Your task to perform on an android device: clear all cookies in the chrome app Image 0: 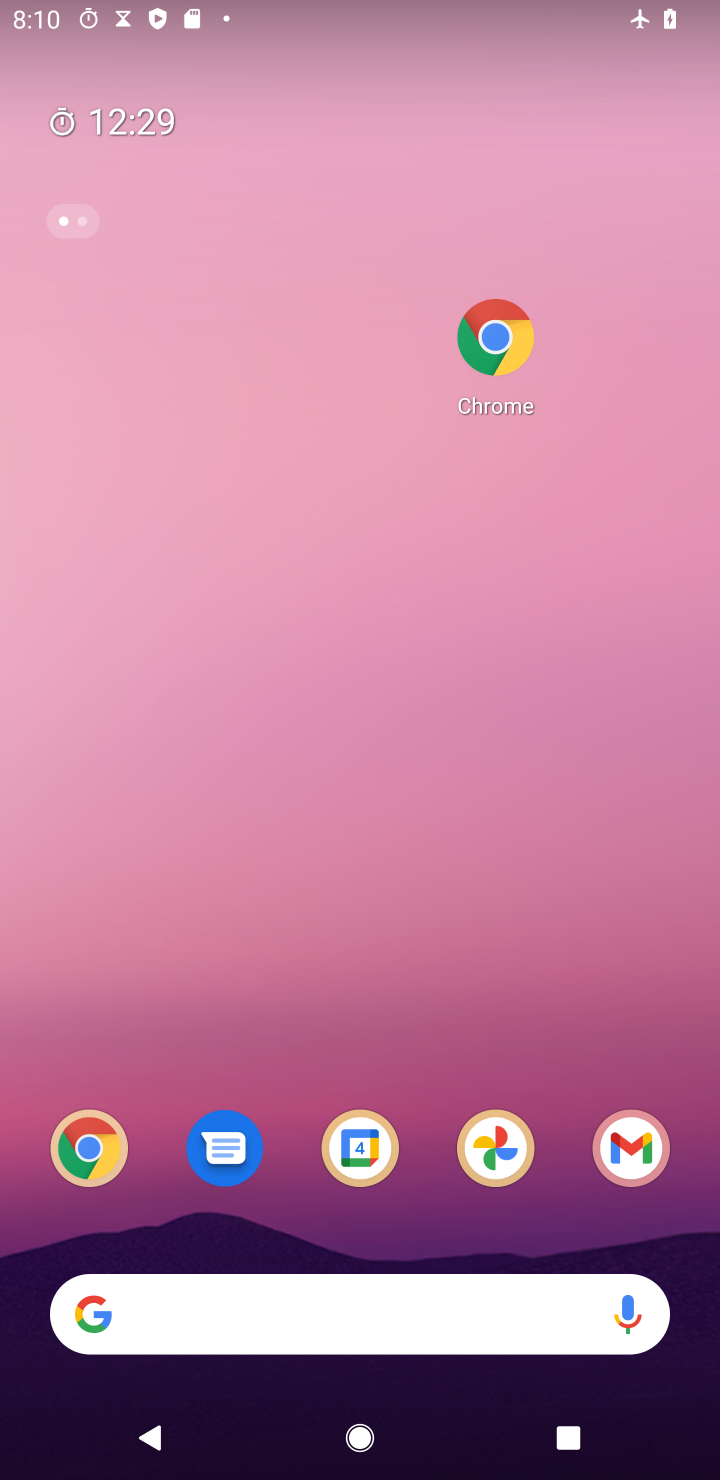
Step 0: click (90, 1153)
Your task to perform on an android device: clear all cookies in the chrome app Image 1: 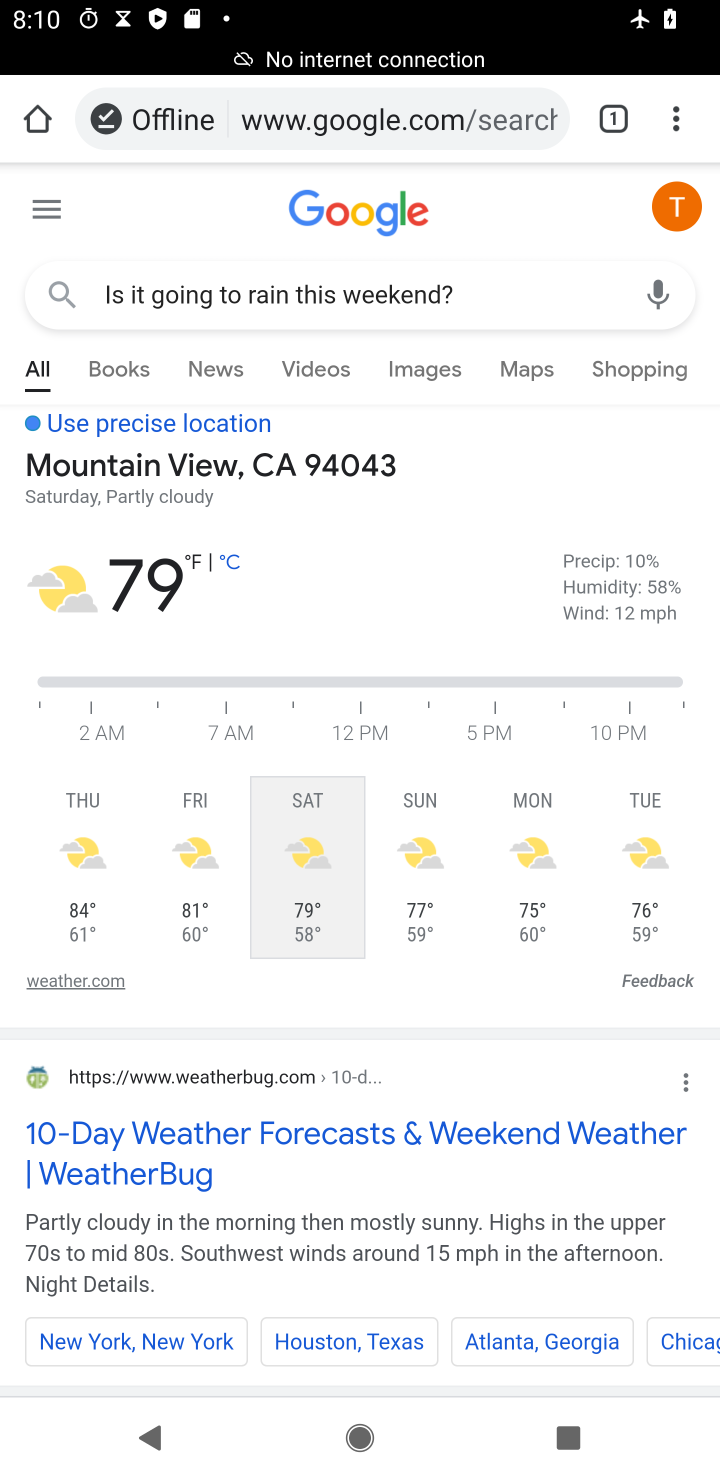
Step 1: click (678, 118)
Your task to perform on an android device: clear all cookies in the chrome app Image 2: 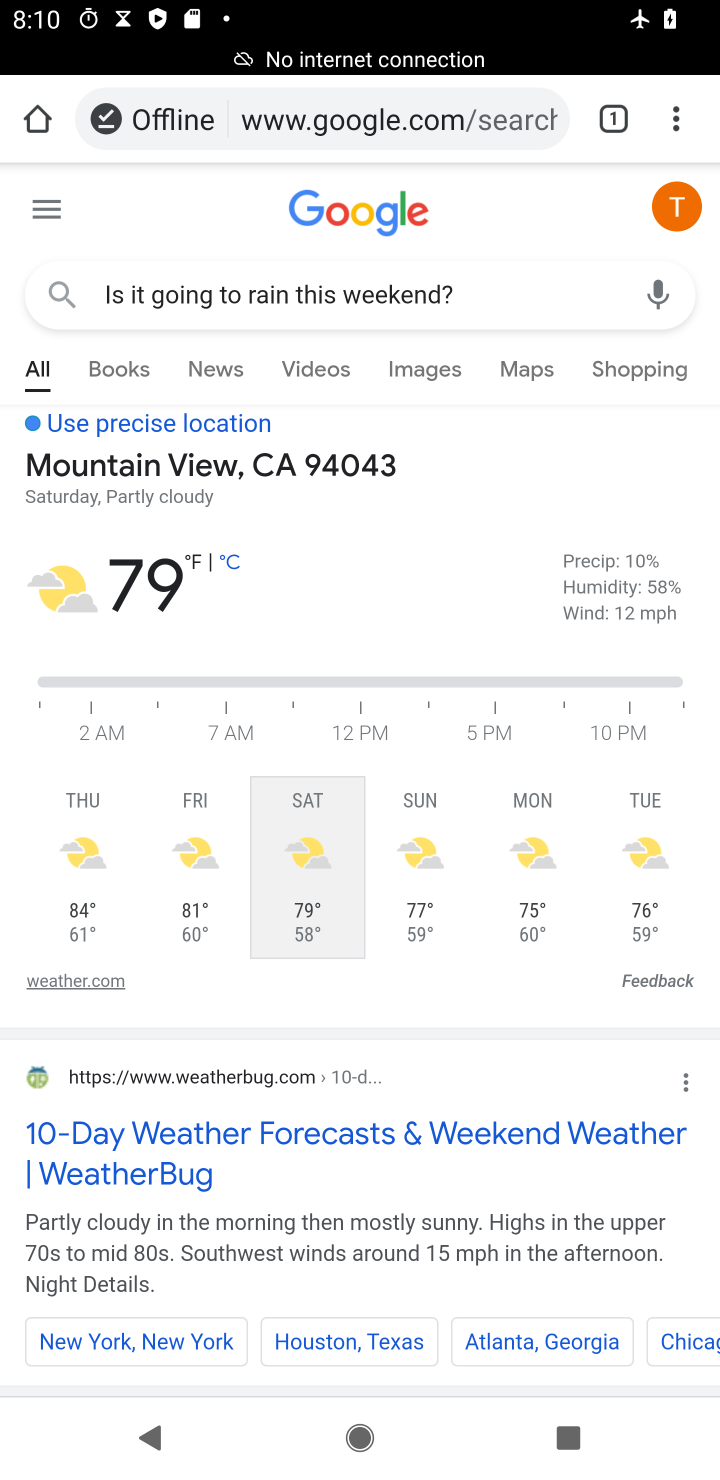
Step 2: click (676, 124)
Your task to perform on an android device: clear all cookies in the chrome app Image 3: 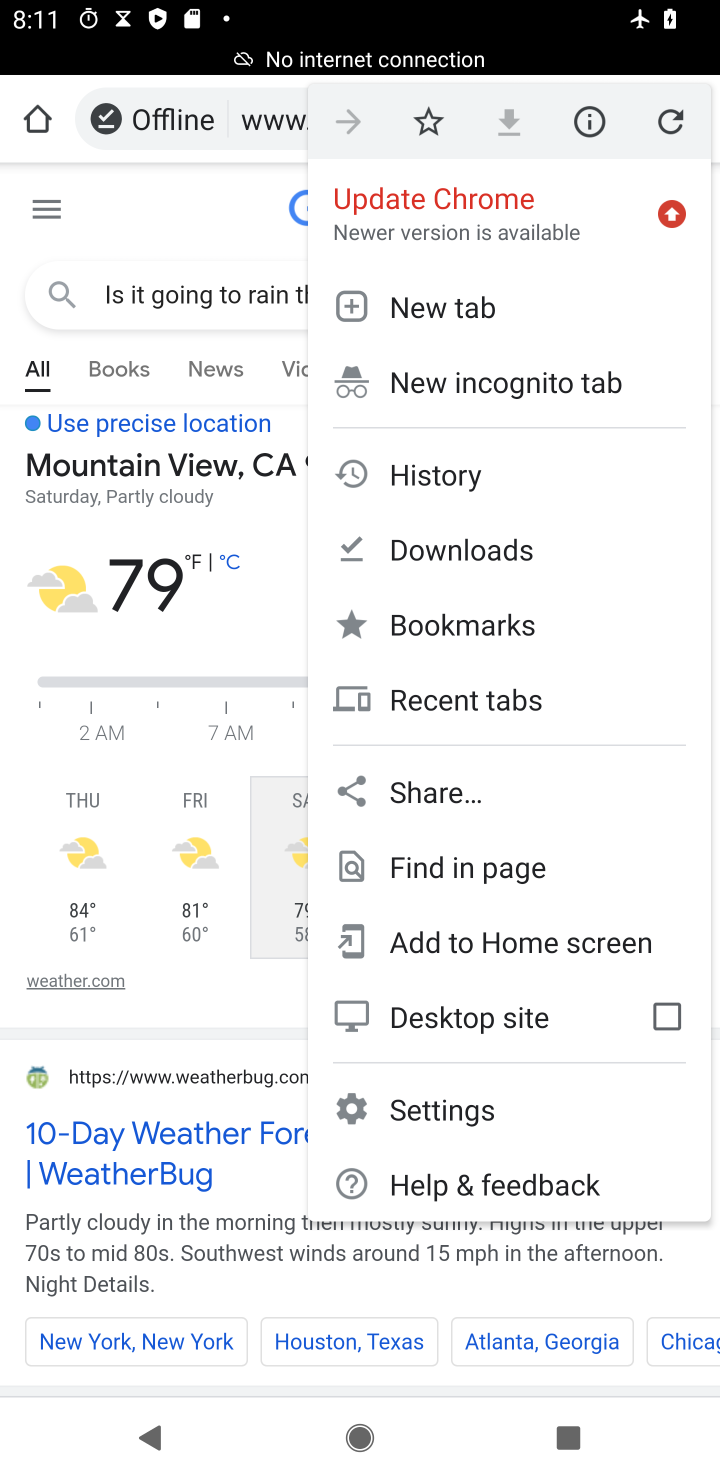
Step 3: click (462, 479)
Your task to perform on an android device: clear all cookies in the chrome app Image 4: 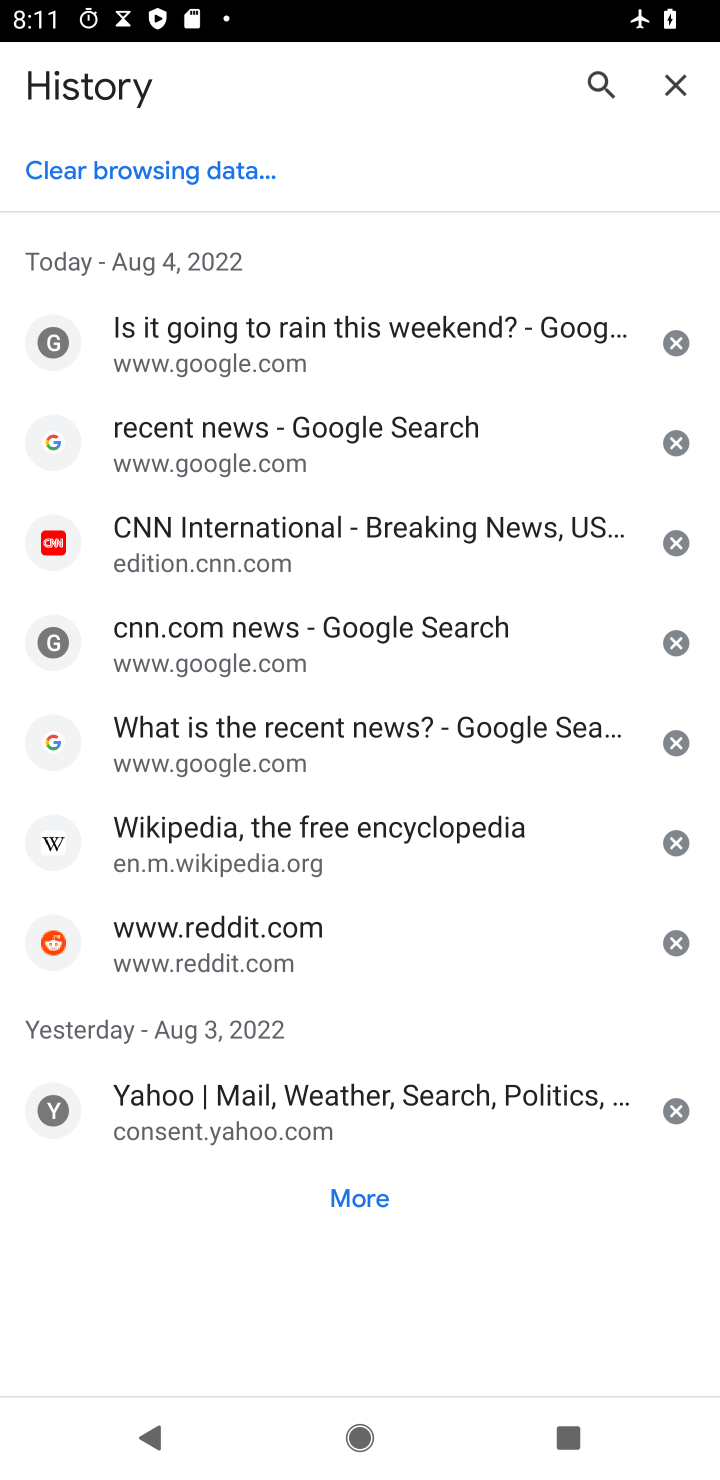
Step 4: click (164, 170)
Your task to perform on an android device: clear all cookies in the chrome app Image 5: 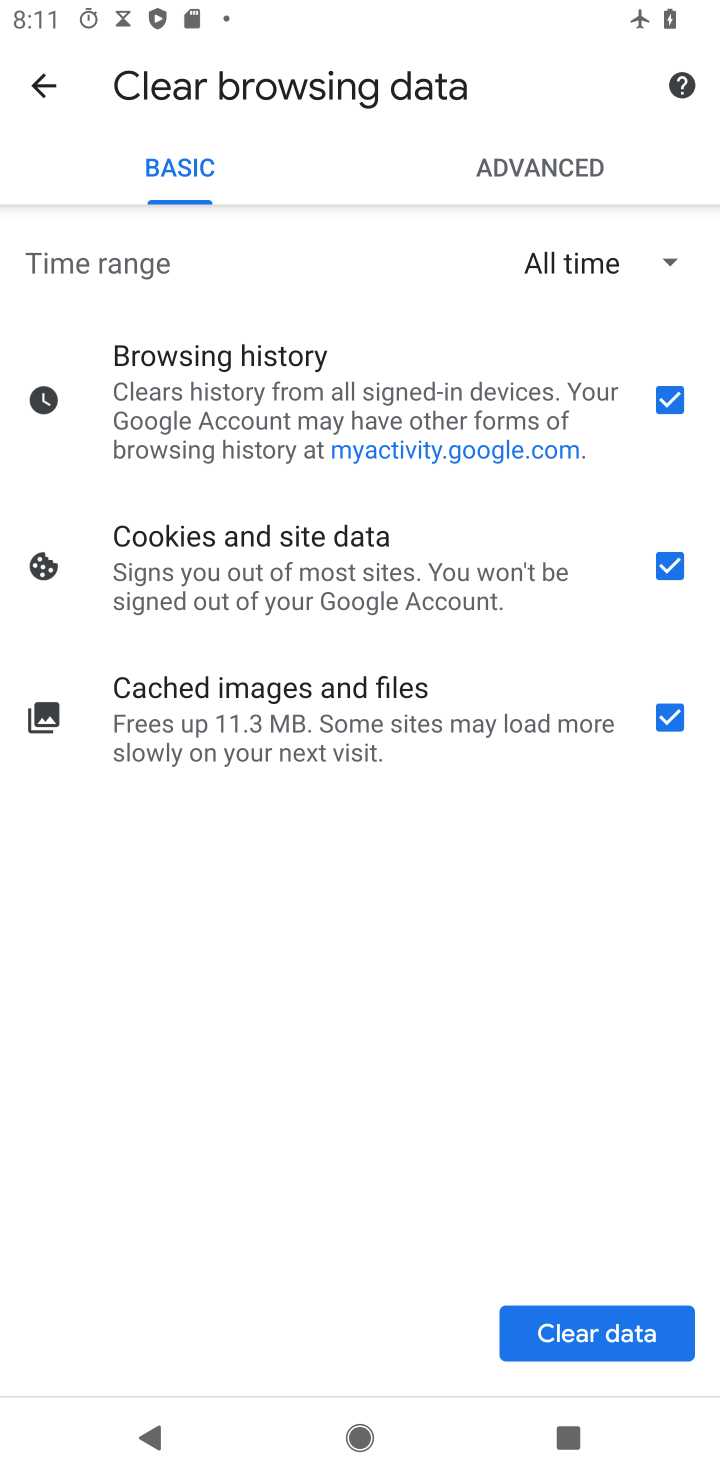
Step 5: click (666, 731)
Your task to perform on an android device: clear all cookies in the chrome app Image 6: 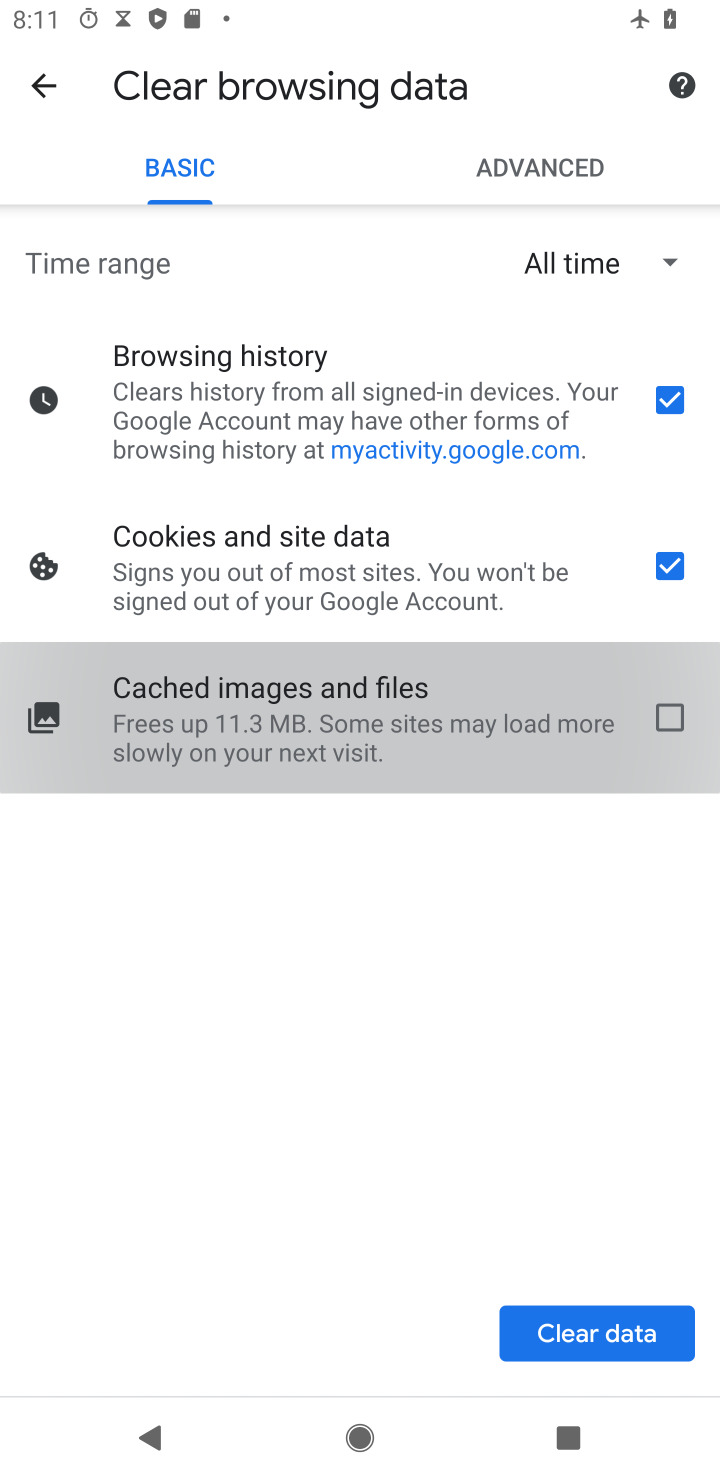
Step 6: click (658, 566)
Your task to perform on an android device: clear all cookies in the chrome app Image 7: 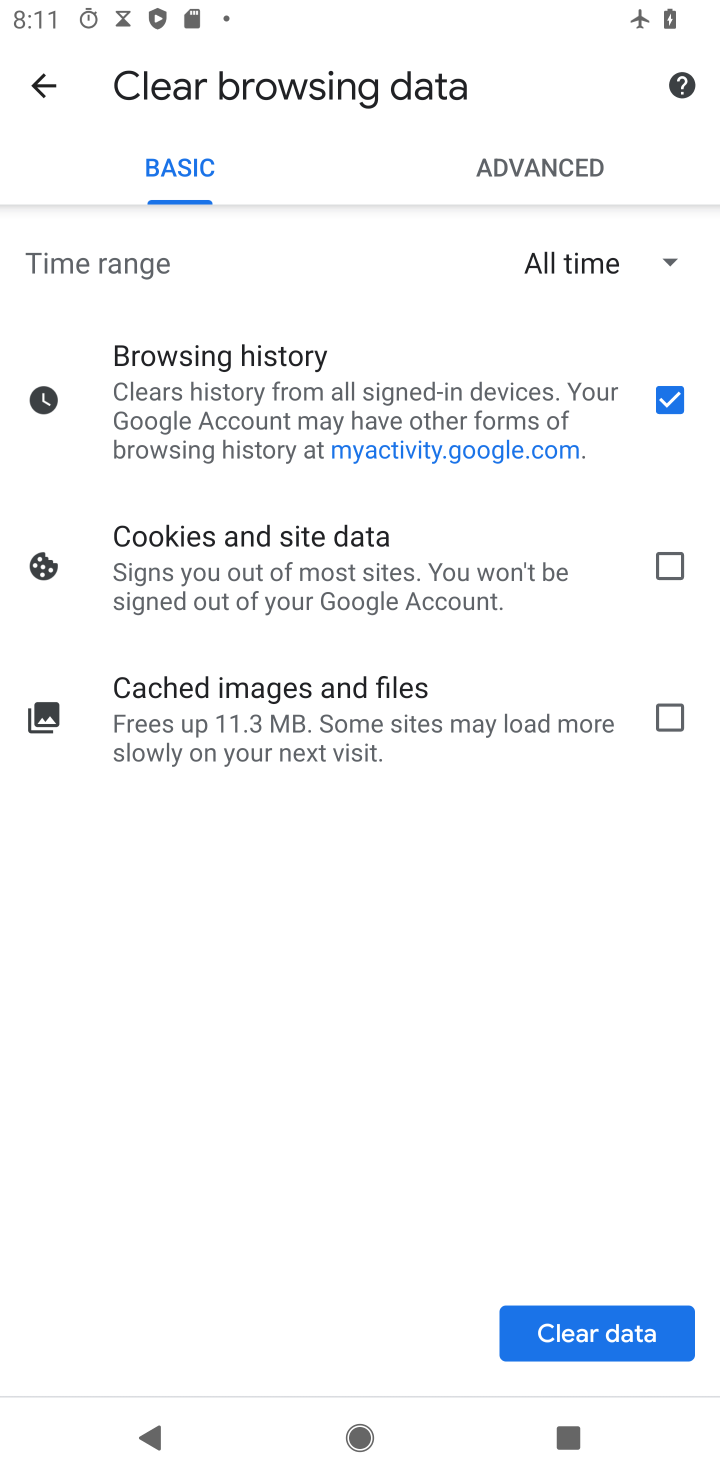
Step 7: click (644, 1333)
Your task to perform on an android device: clear all cookies in the chrome app Image 8: 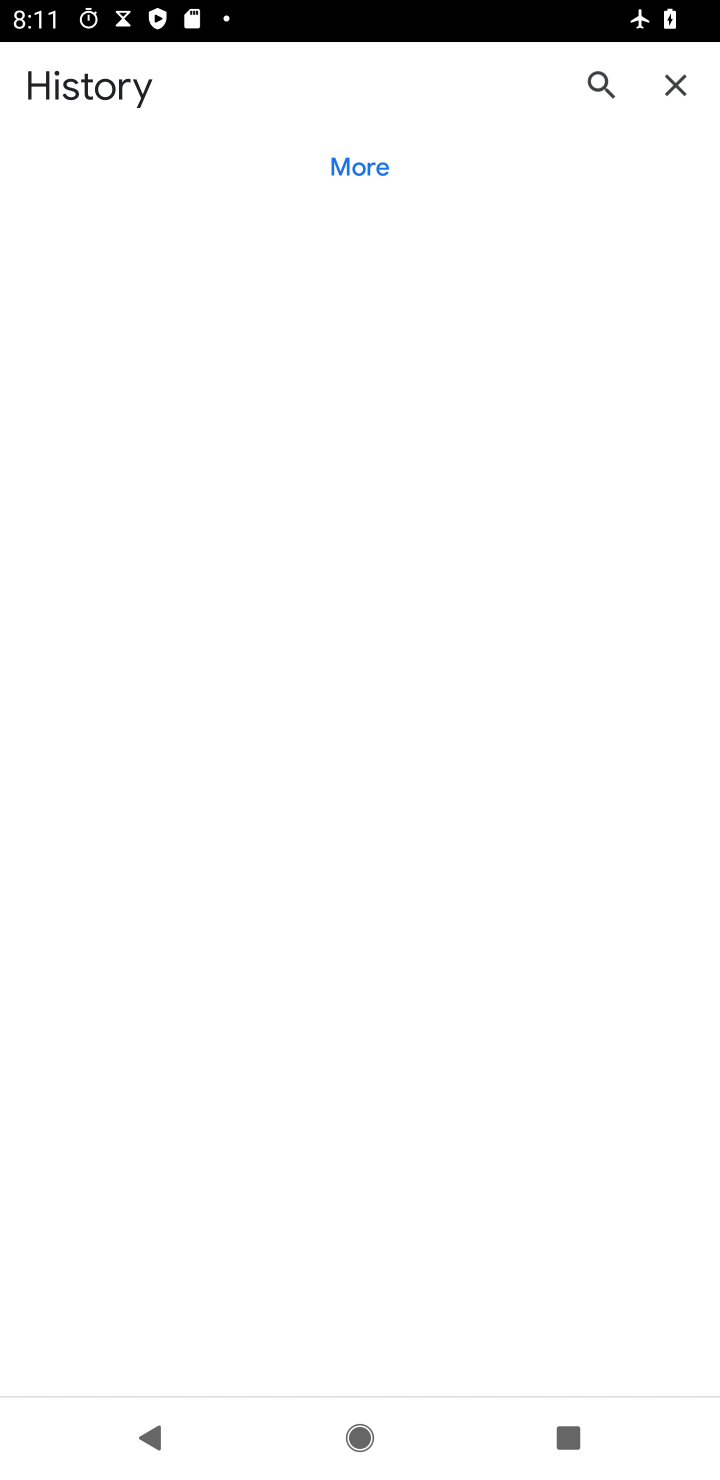
Step 8: task complete